Your task to perform on an android device: toggle notifications settings in the gmail app Image 0: 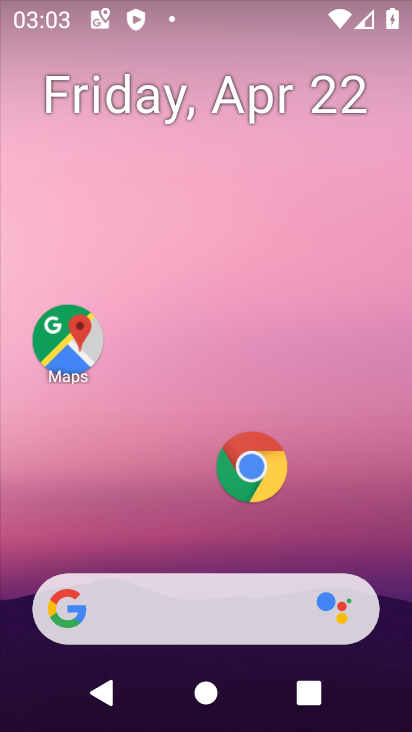
Step 0: drag from (220, 541) to (234, 117)
Your task to perform on an android device: toggle notifications settings in the gmail app Image 1: 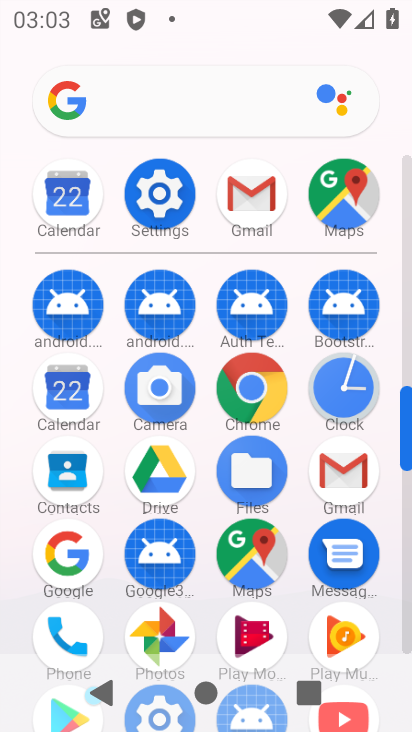
Step 1: click (242, 184)
Your task to perform on an android device: toggle notifications settings in the gmail app Image 2: 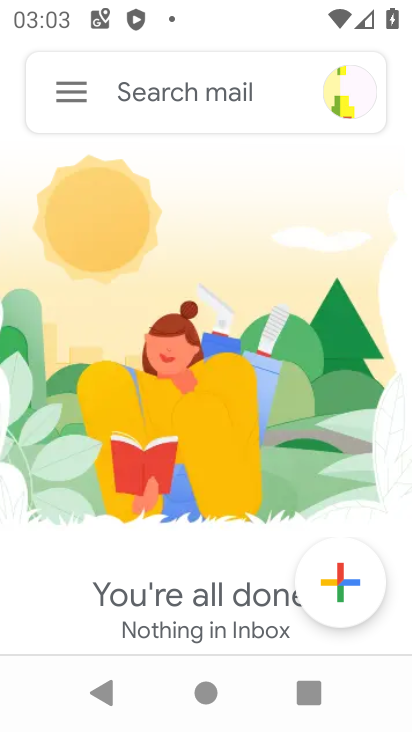
Step 2: click (64, 89)
Your task to perform on an android device: toggle notifications settings in the gmail app Image 3: 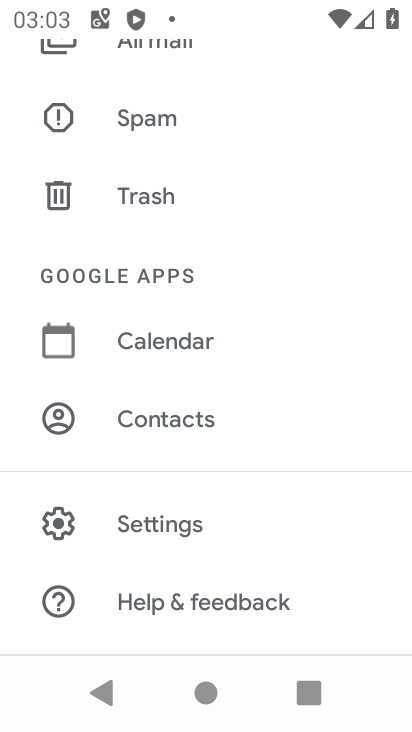
Step 3: click (161, 533)
Your task to perform on an android device: toggle notifications settings in the gmail app Image 4: 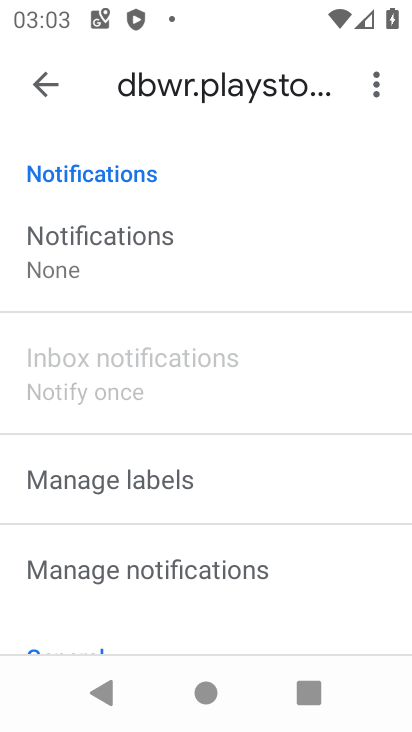
Step 4: click (115, 237)
Your task to perform on an android device: toggle notifications settings in the gmail app Image 5: 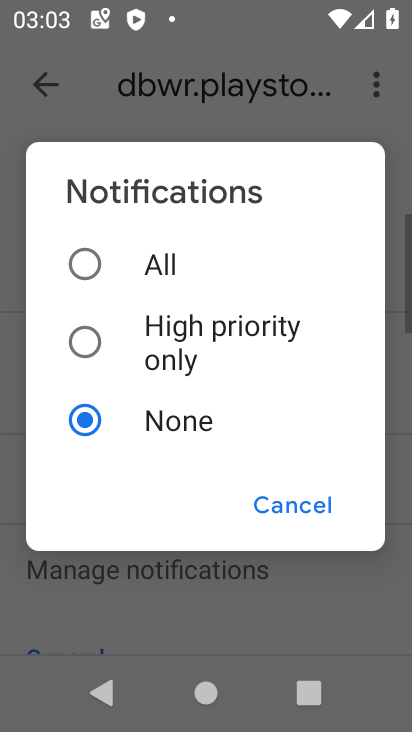
Step 5: click (180, 267)
Your task to perform on an android device: toggle notifications settings in the gmail app Image 6: 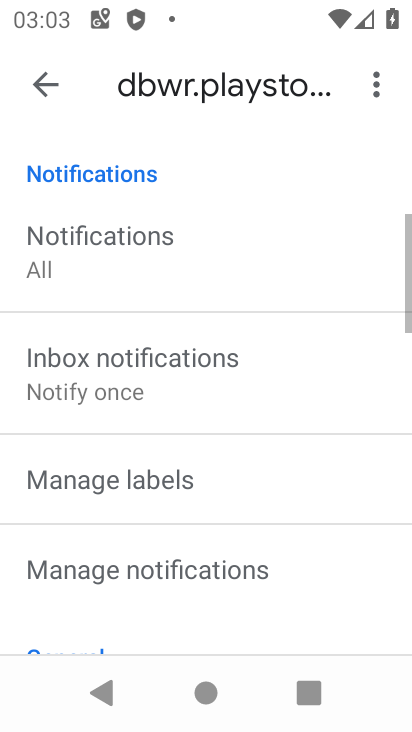
Step 6: task complete